Your task to perform on an android device: Install the Weather app Image 0: 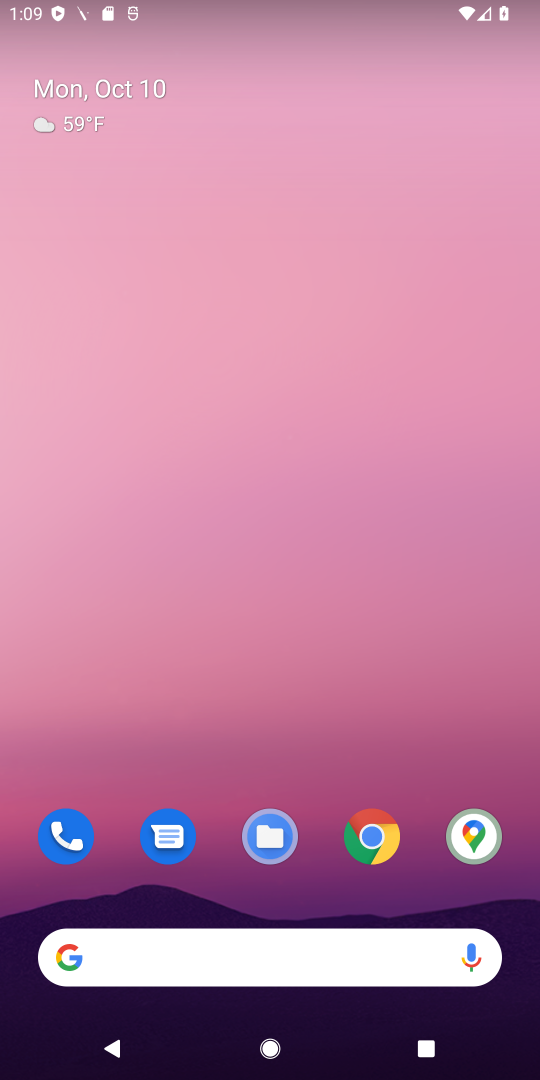
Step 0: drag from (329, 803) to (353, 239)
Your task to perform on an android device: Install the Weather app Image 1: 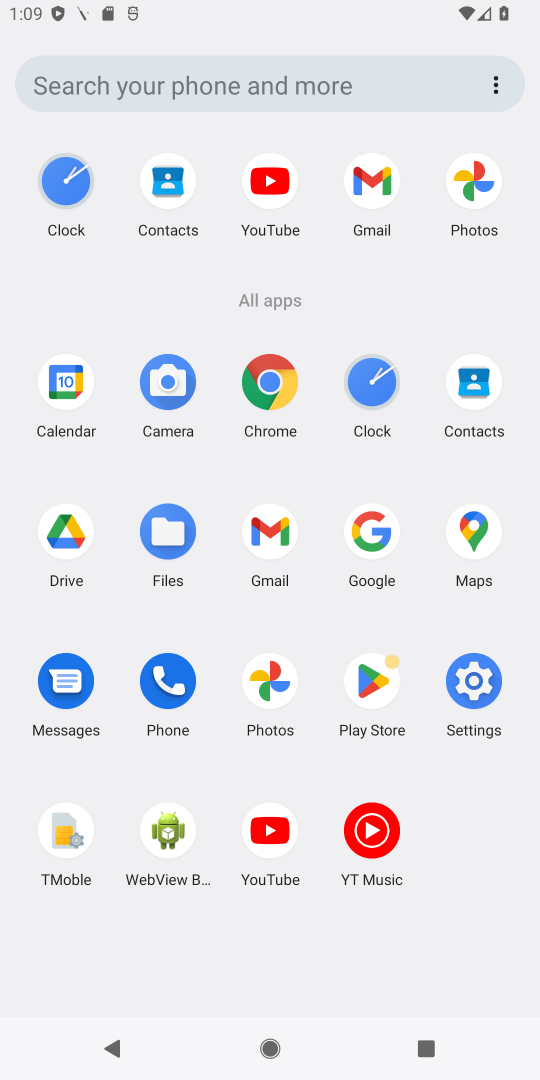
Step 1: click (391, 668)
Your task to perform on an android device: Install the Weather app Image 2: 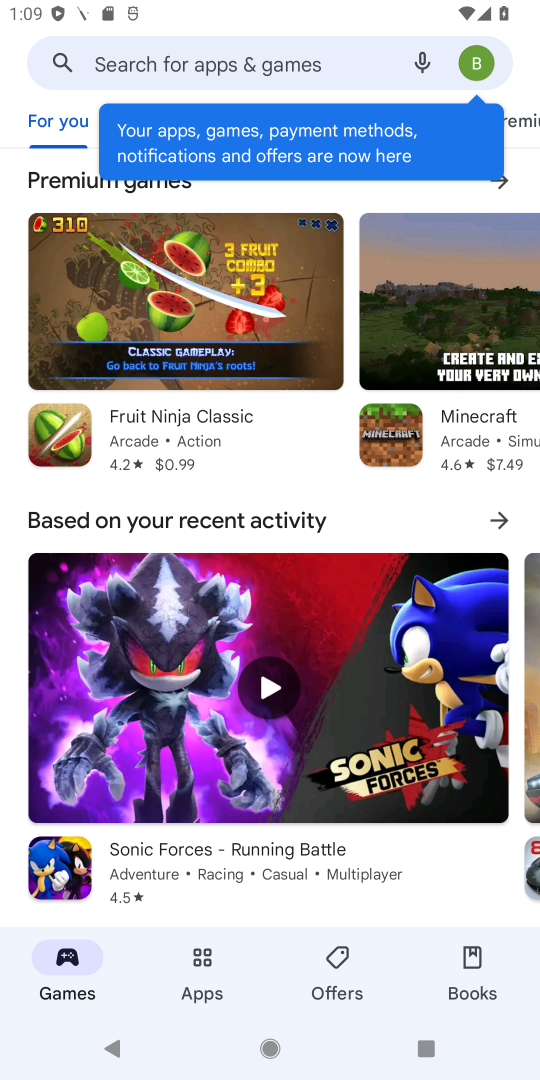
Step 2: click (286, 47)
Your task to perform on an android device: Install the Weather app Image 3: 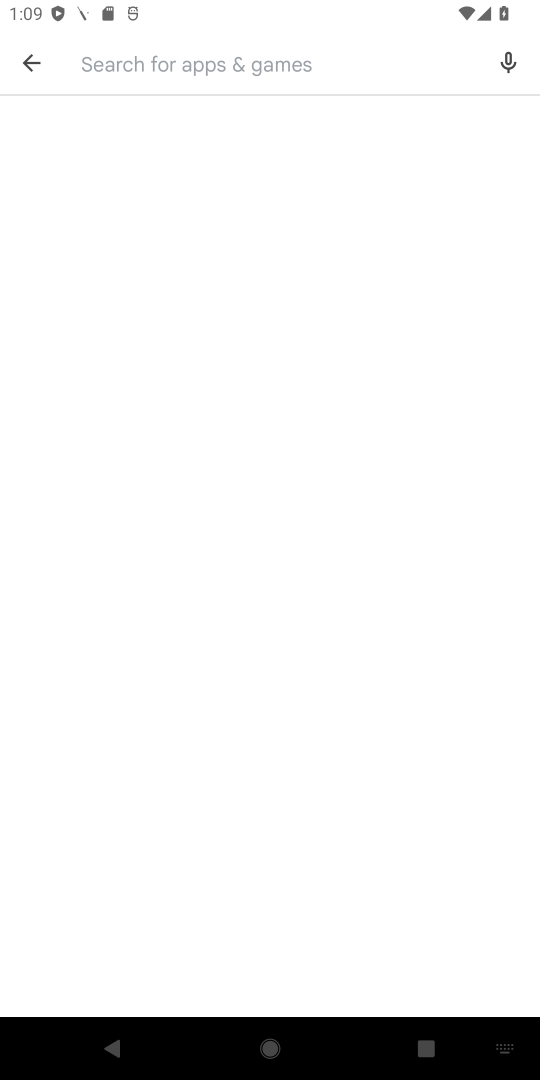
Step 3: type "weather app"
Your task to perform on an android device: Install the Weather app Image 4: 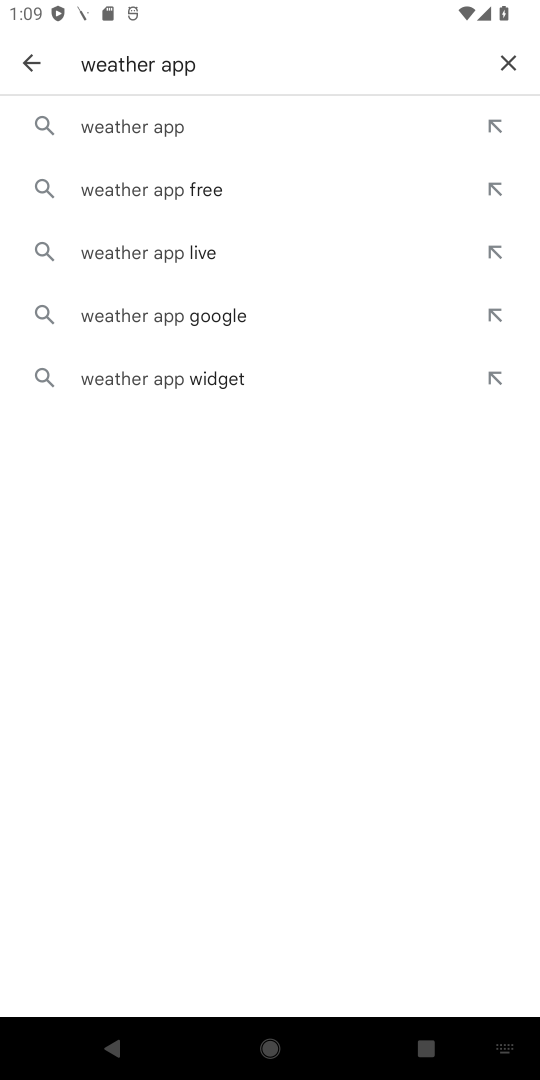
Step 4: click (146, 120)
Your task to perform on an android device: Install the Weather app Image 5: 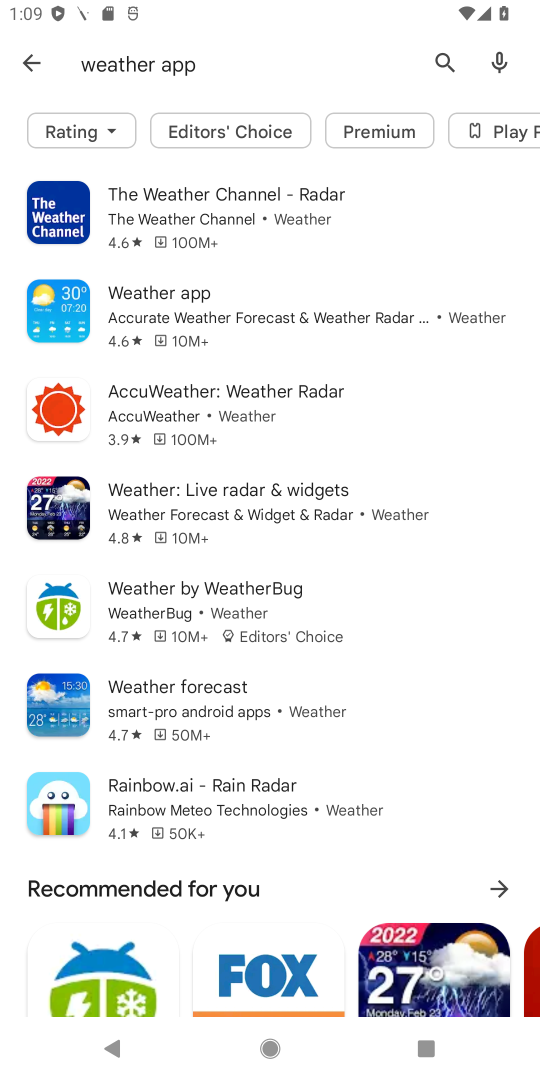
Step 5: click (271, 298)
Your task to perform on an android device: Install the Weather app Image 6: 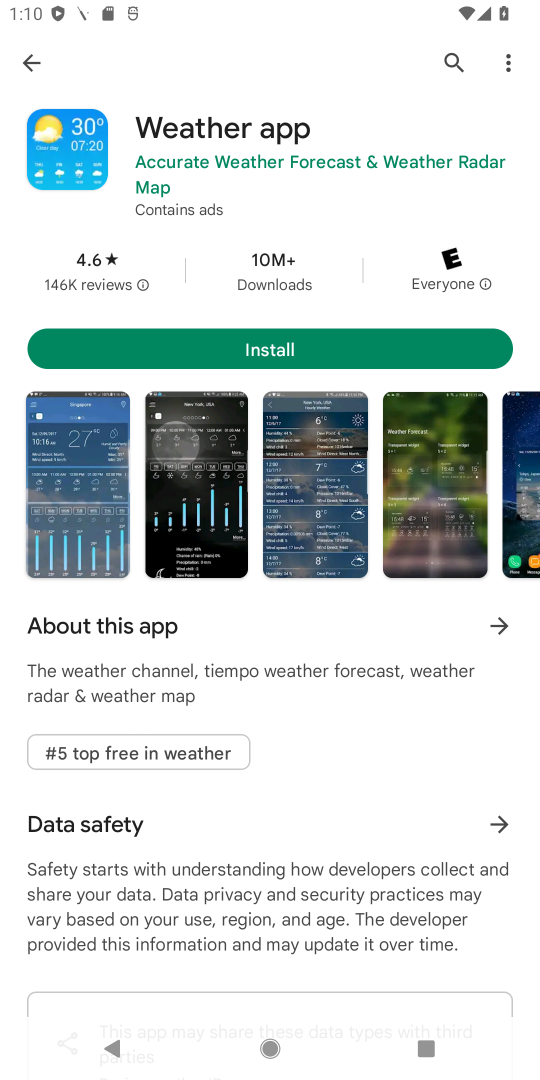
Step 6: click (327, 349)
Your task to perform on an android device: Install the Weather app Image 7: 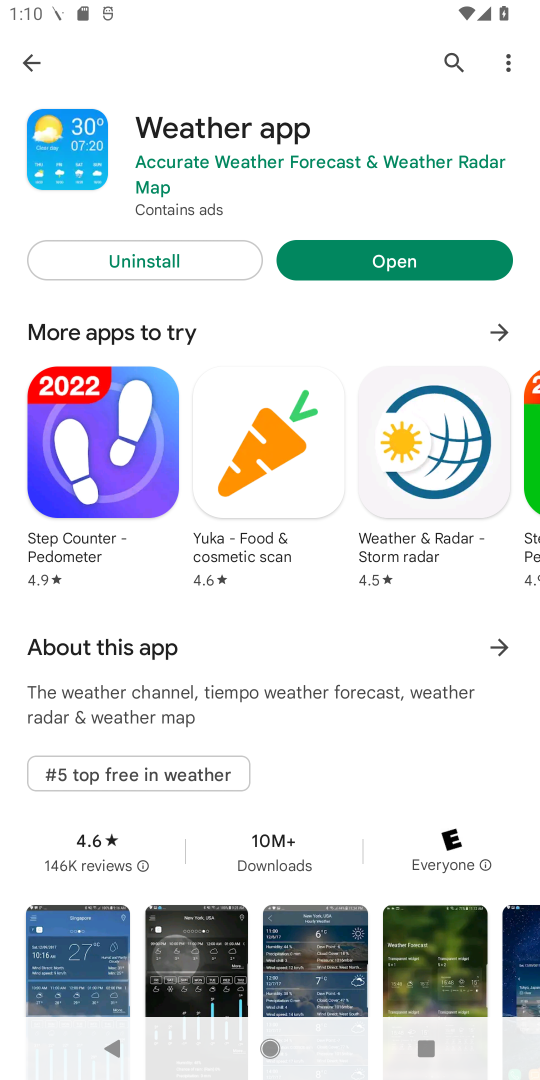
Step 7: task complete